Your task to perform on an android device: see creations saved in the google photos Image 0: 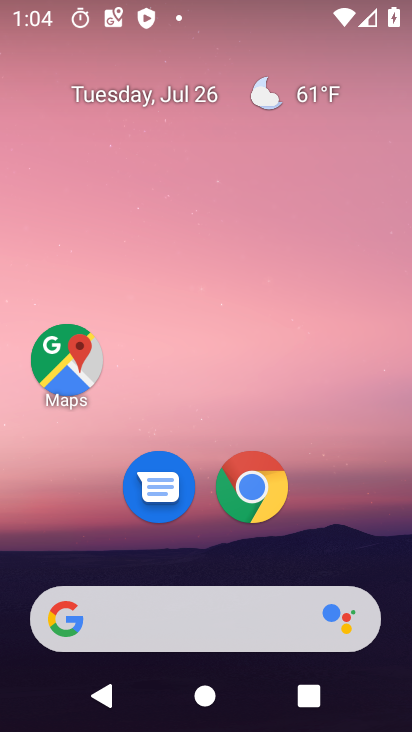
Step 0: drag from (104, 562) to (224, 5)
Your task to perform on an android device: see creations saved in the google photos Image 1: 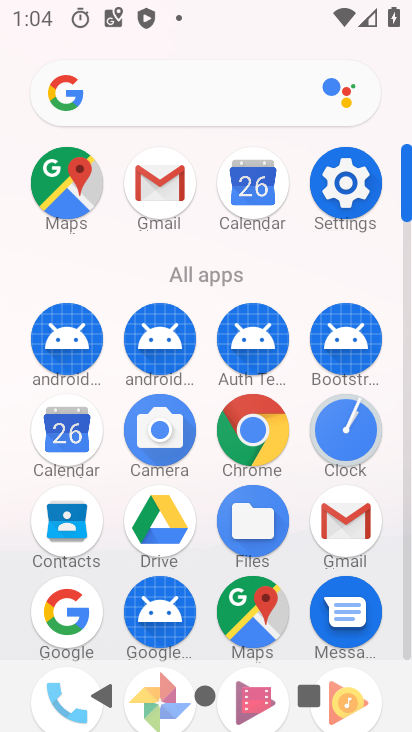
Step 1: drag from (166, 626) to (233, 130)
Your task to perform on an android device: see creations saved in the google photos Image 2: 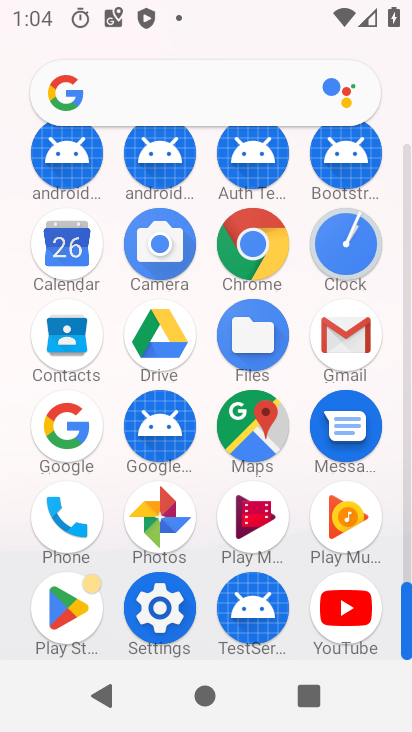
Step 2: click (158, 533)
Your task to perform on an android device: see creations saved in the google photos Image 3: 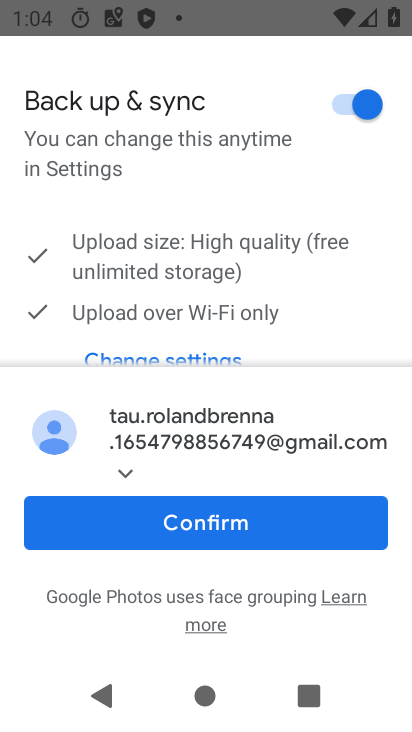
Step 3: click (192, 522)
Your task to perform on an android device: see creations saved in the google photos Image 4: 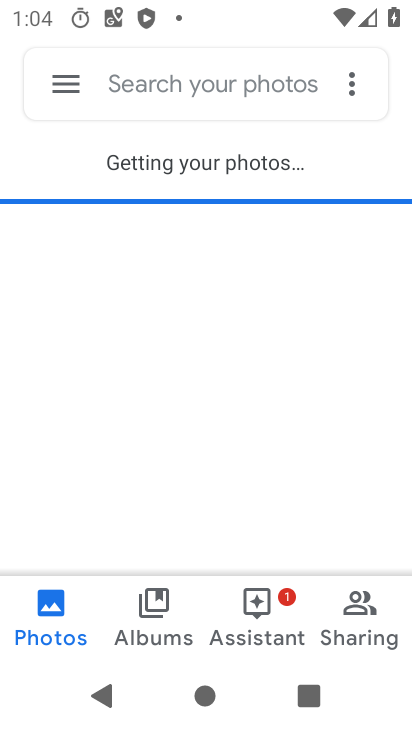
Step 4: click (71, 86)
Your task to perform on an android device: see creations saved in the google photos Image 5: 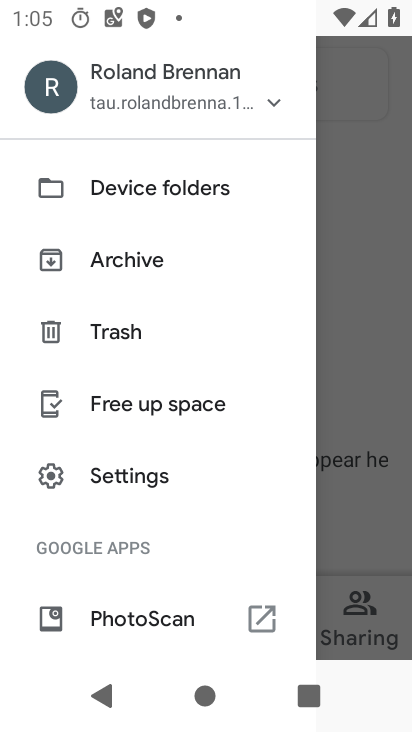
Step 5: click (124, 262)
Your task to perform on an android device: see creations saved in the google photos Image 6: 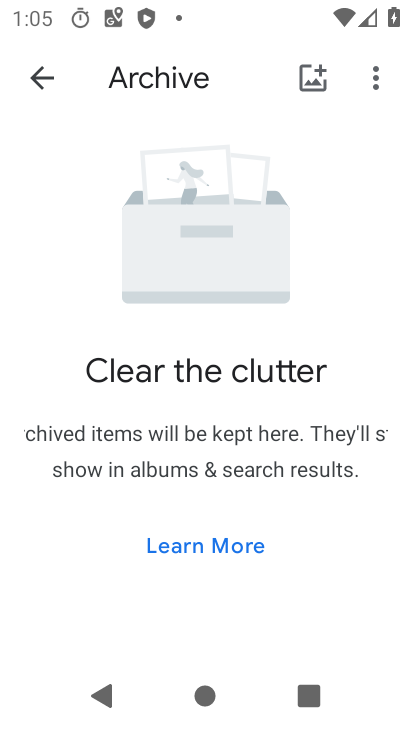
Step 6: task complete